Your task to perform on an android device: change the clock style Image 0: 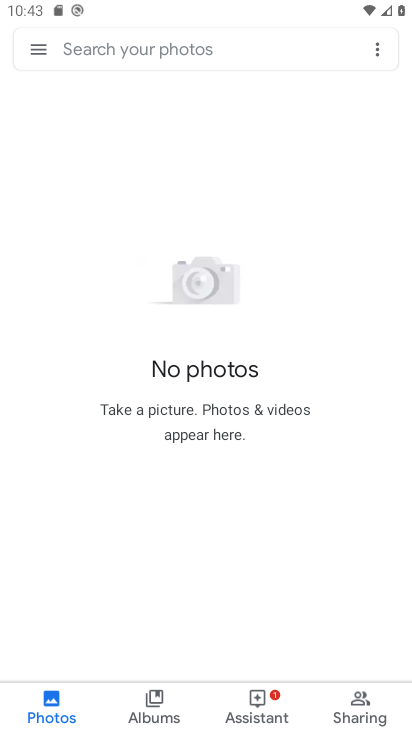
Step 0: press back button
Your task to perform on an android device: change the clock style Image 1: 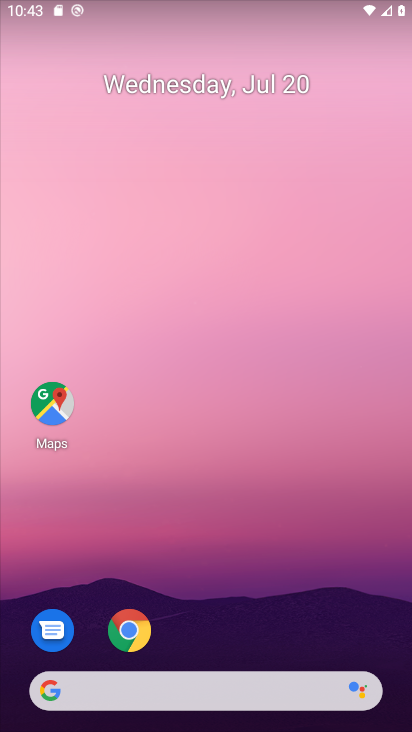
Step 1: drag from (249, 649) to (196, 187)
Your task to perform on an android device: change the clock style Image 2: 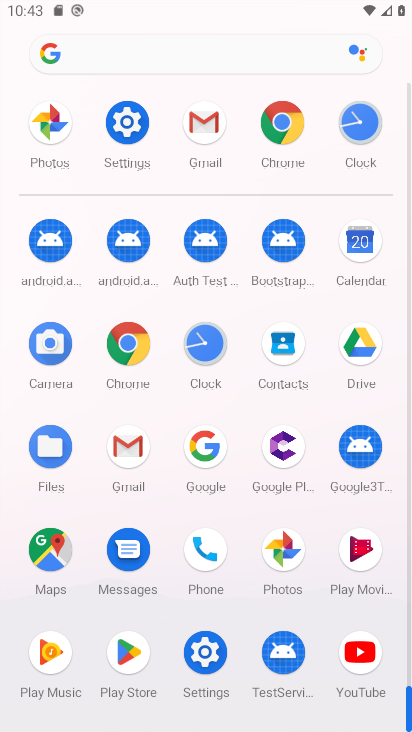
Step 2: click (130, 128)
Your task to perform on an android device: change the clock style Image 3: 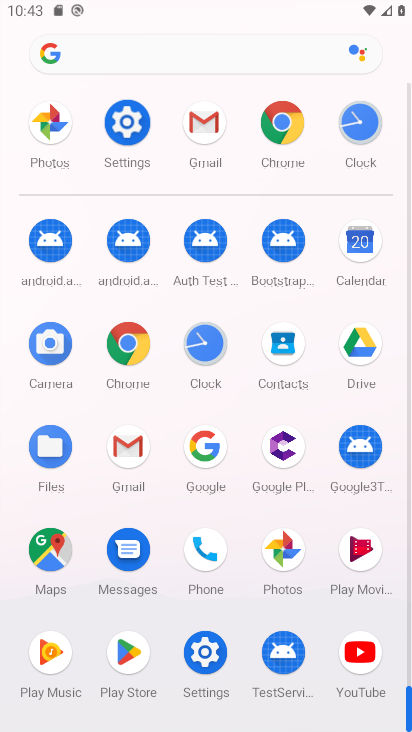
Step 3: click (130, 128)
Your task to perform on an android device: change the clock style Image 4: 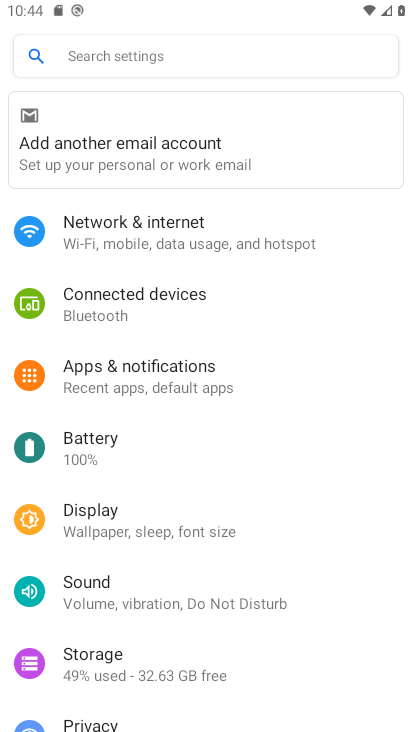
Step 4: press back button
Your task to perform on an android device: change the clock style Image 5: 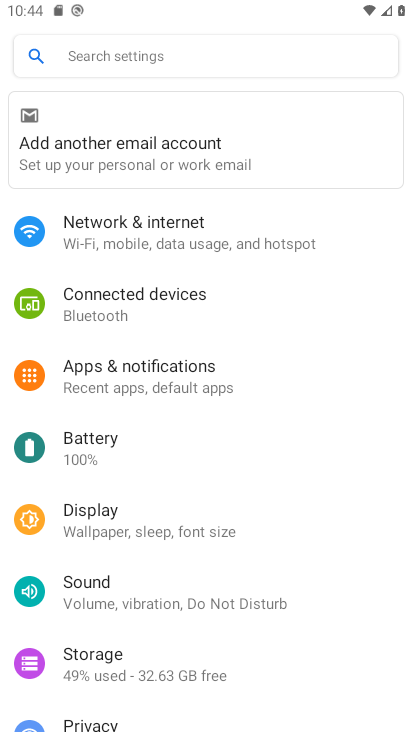
Step 5: press back button
Your task to perform on an android device: change the clock style Image 6: 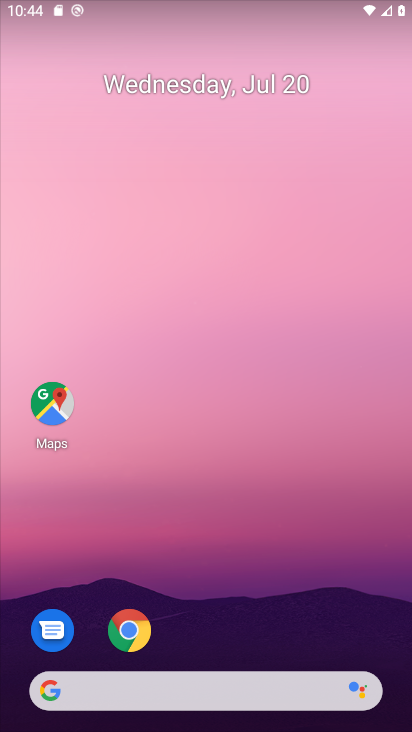
Step 6: drag from (218, 449) to (199, 280)
Your task to perform on an android device: change the clock style Image 7: 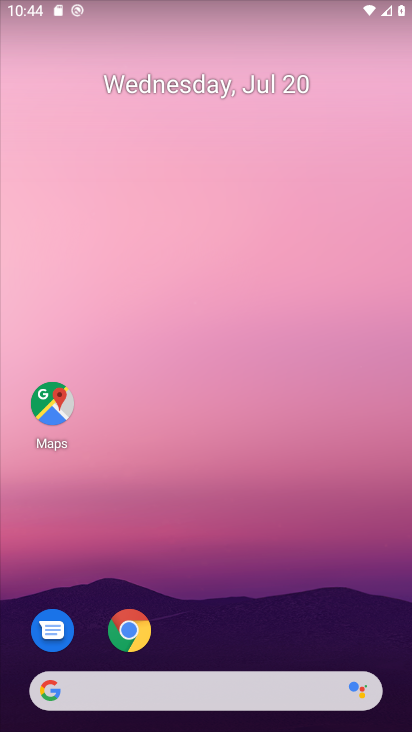
Step 7: drag from (197, 529) to (171, 149)
Your task to perform on an android device: change the clock style Image 8: 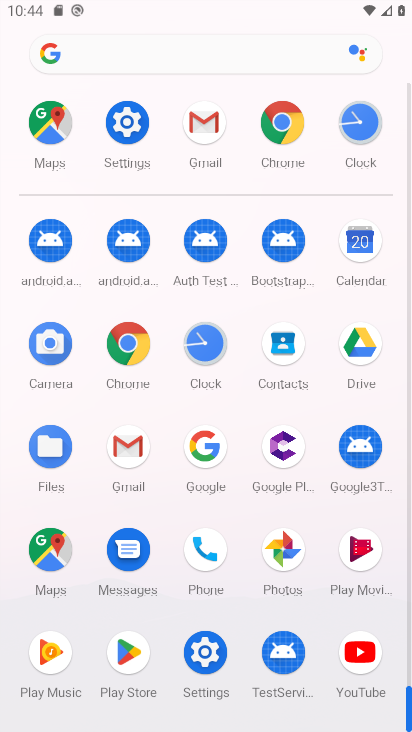
Step 8: click (197, 324)
Your task to perform on an android device: change the clock style Image 9: 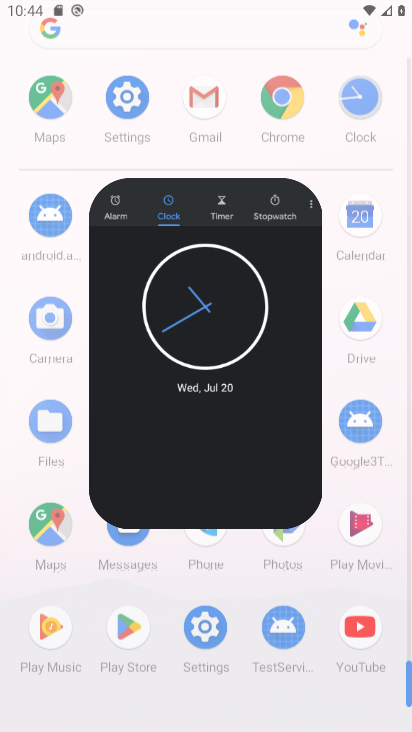
Step 9: click (197, 326)
Your task to perform on an android device: change the clock style Image 10: 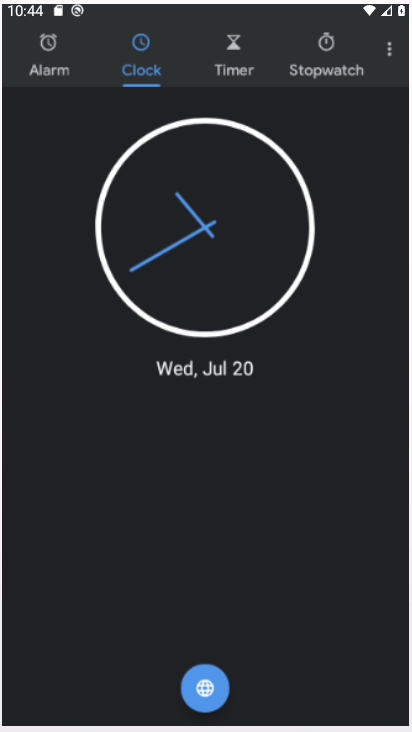
Step 10: click (197, 328)
Your task to perform on an android device: change the clock style Image 11: 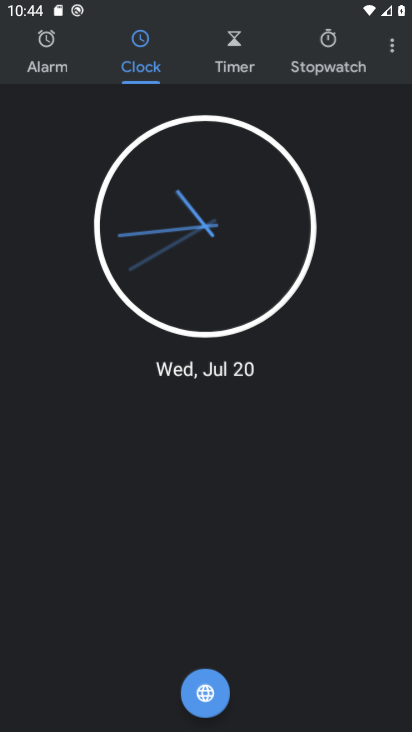
Step 11: click (197, 328)
Your task to perform on an android device: change the clock style Image 12: 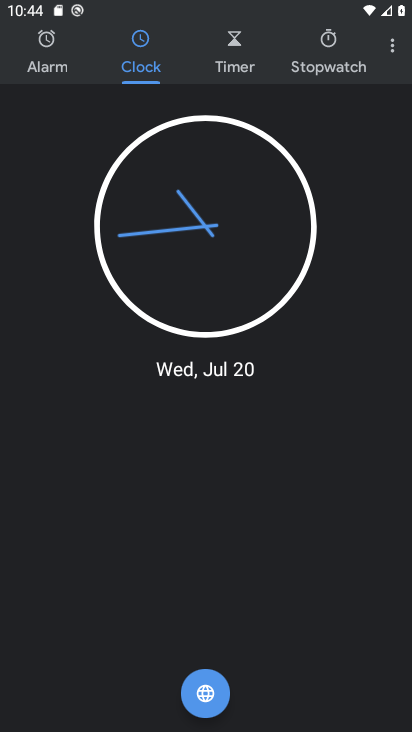
Step 12: click (382, 52)
Your task to perform on an android device: change the clock style Image 13: 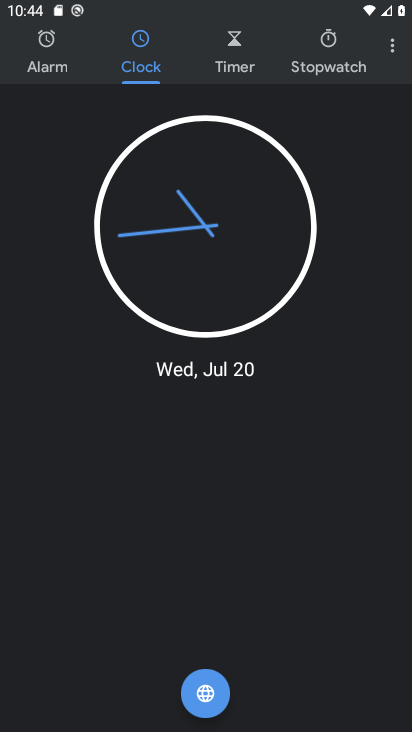
Step 13: click (382, 52)
Your task to perform on an android device: change the clock style Image 14: 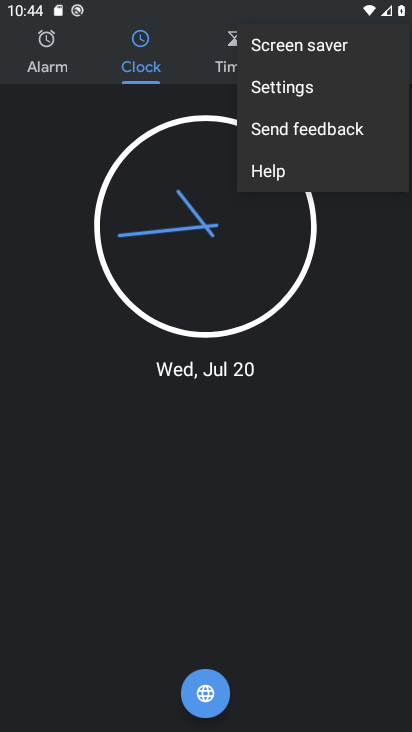
Step 14: click (298, 90)
Your task to perform on an android device: change the clock style Image 15: 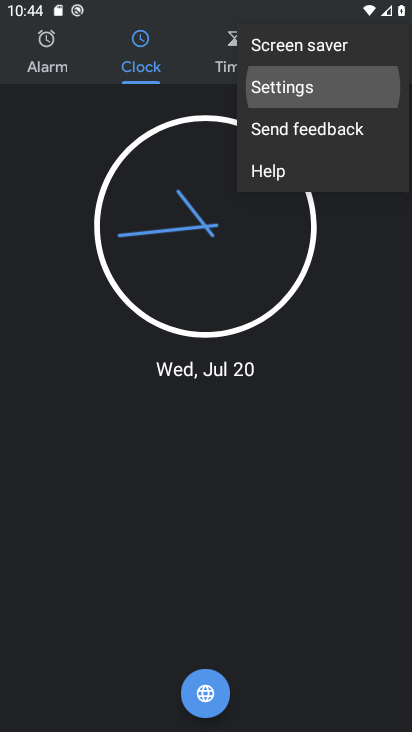
Step 15: click (301, 85)
Your task to perform on an android device: change the clock style Image 16: 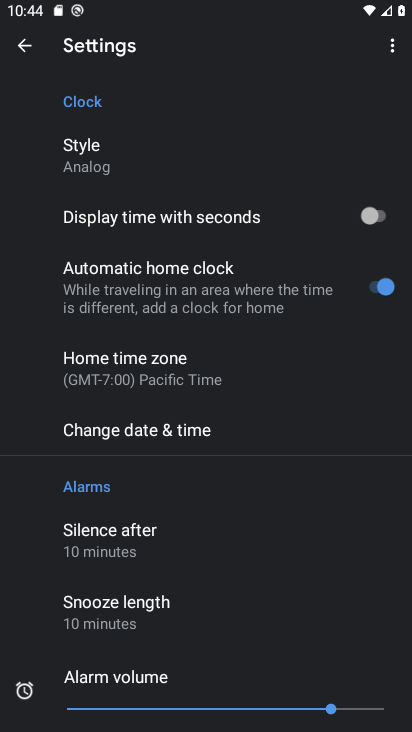
Step 16: click (89, 147)
Your task to perform on an android device: change the clock style Image 17: 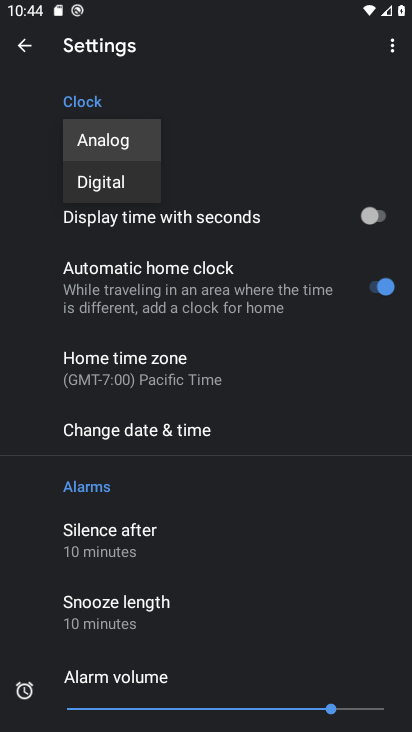
Step 17: click (97, 180)
Your task to perform on an android device: change the clock style Image 18: 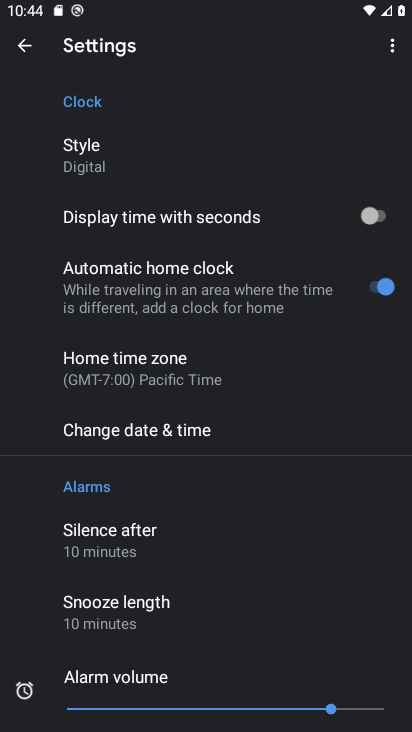
Step 18: task complete